Your task to perform on an android device: change keyboard looks Image 0: 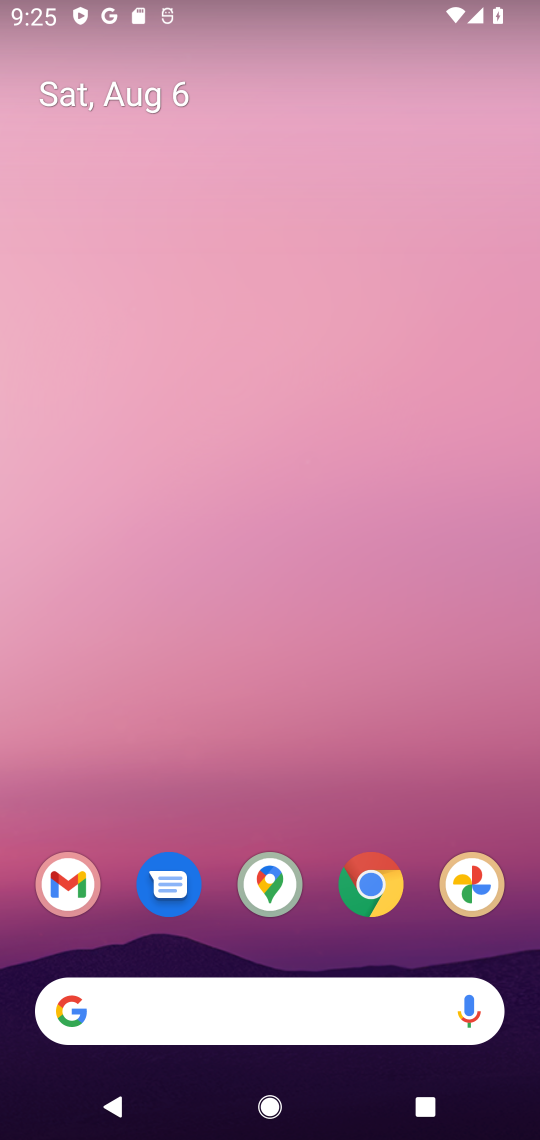
Step 0: drag from (421, 945) to (403, 204)
Your task to perform on an android device: change keyboard looks Image 1: 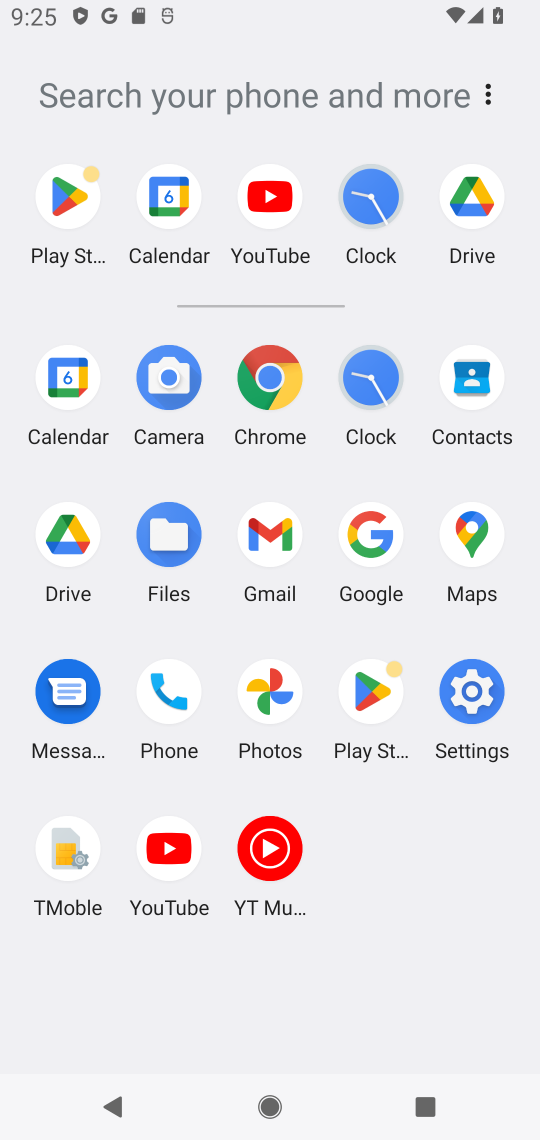
Step 1: click (476, 690)
Your task to perform on an android device: change keyboard looks Image 2: 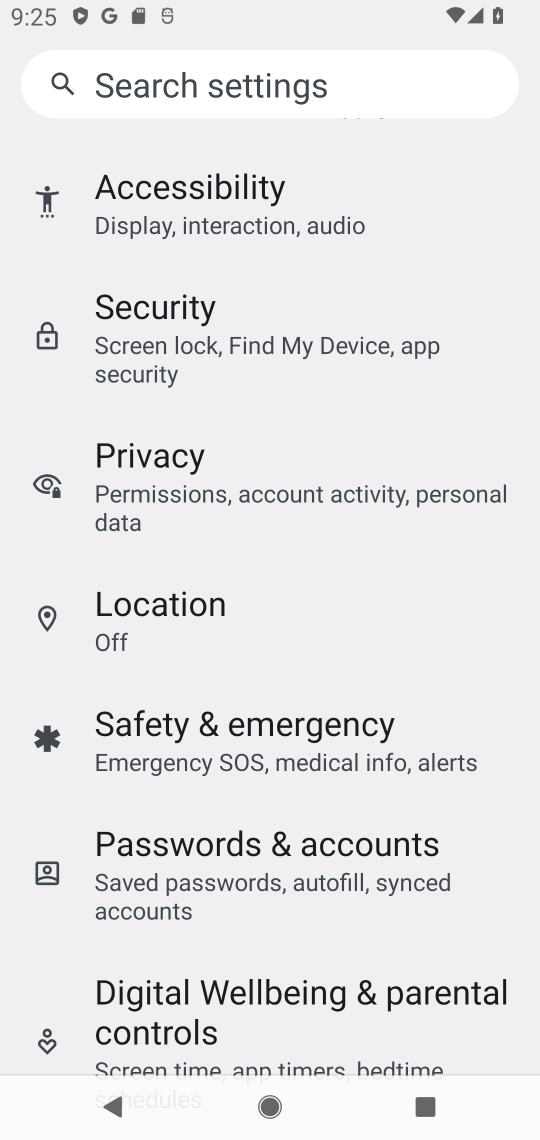
Step 2: drag from (476, 913) to (414, 266)
Your task to perform on an android device: change keyboard looks Image 3: 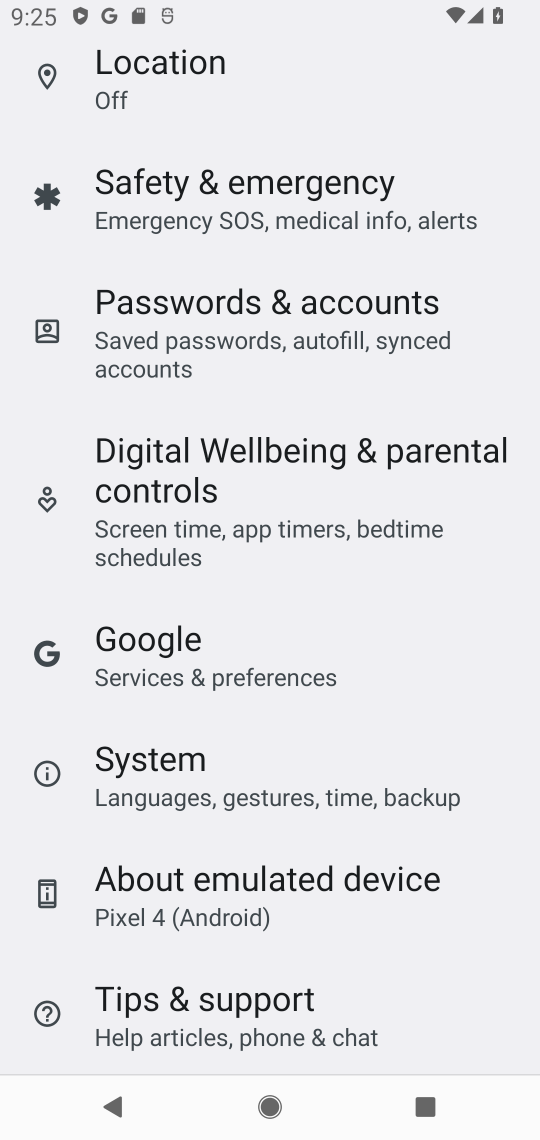
Step 3: click (163, 775)
Your task to perform on an android device: change keyboard looks Image 4: 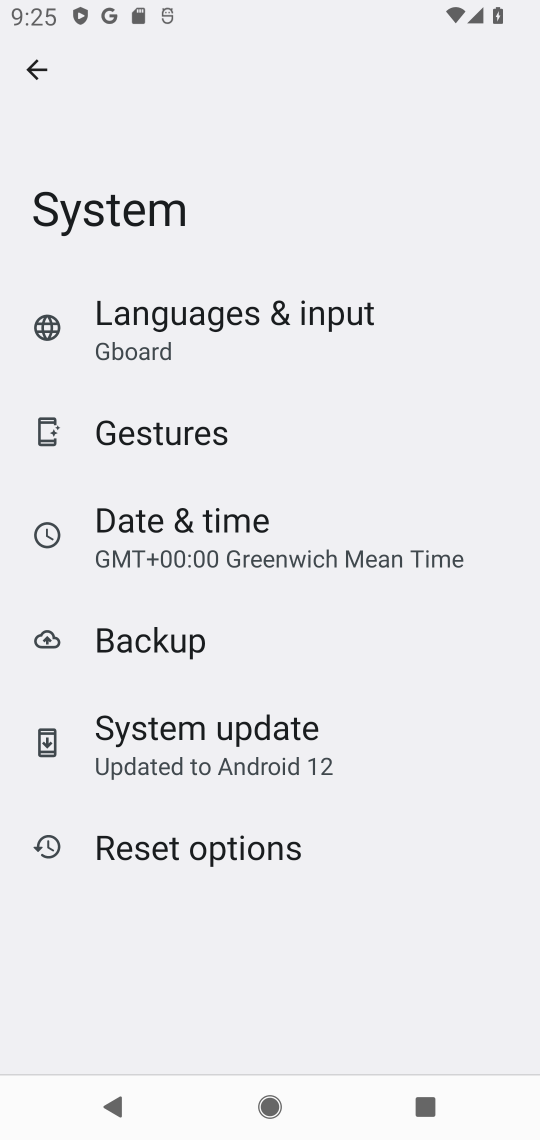
Step 4: click (177, 320)
Your task to perform on an android device: change keyboard looks Image 5: 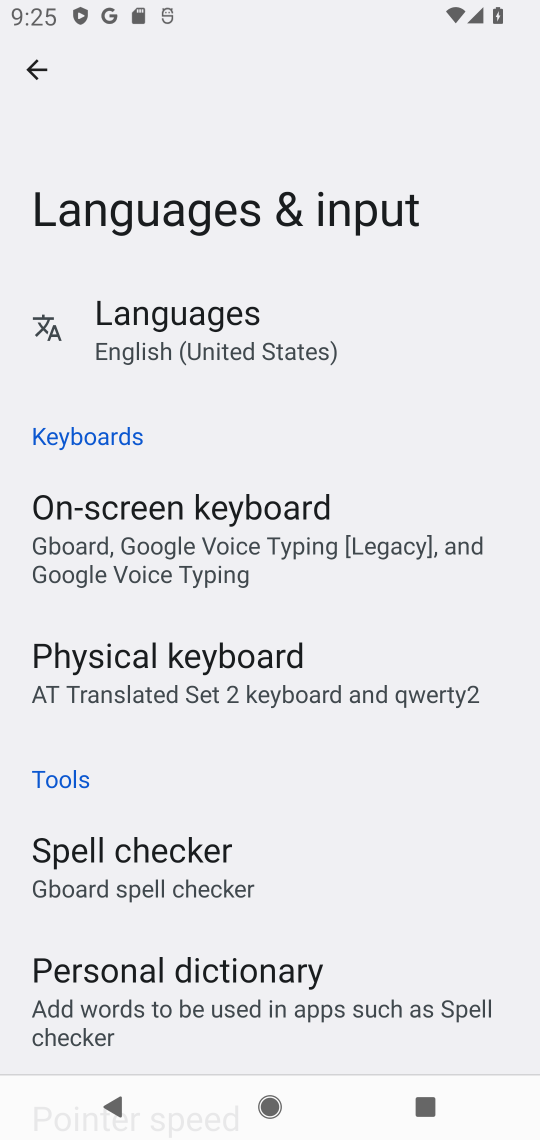
Step 5: click (181, 665)
Your task to perform on an android device: change keyboard looks Image 6: 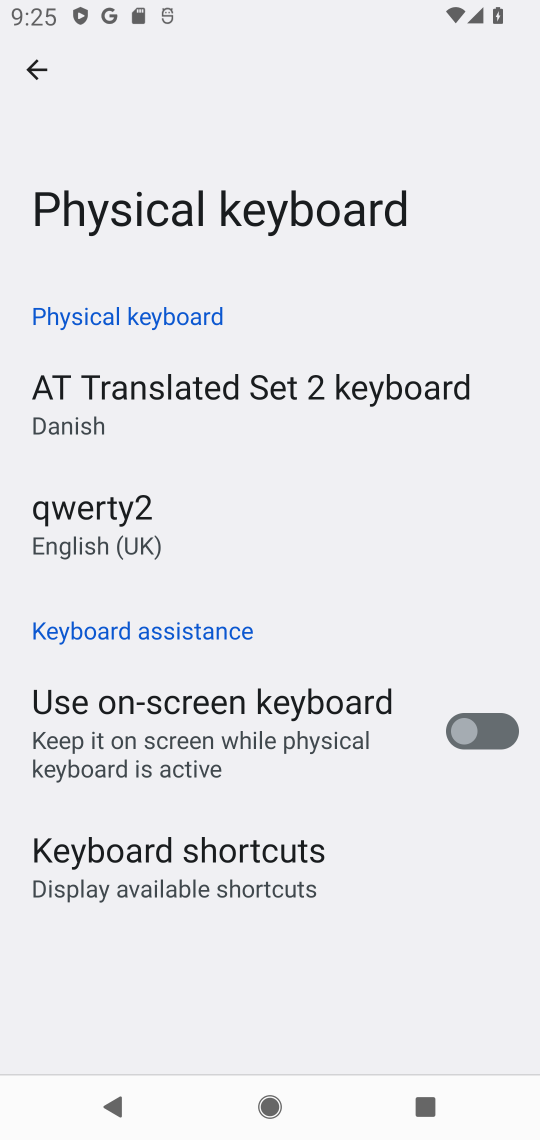
Step 6: click (115, 397)
Your task to perform on an android device: change keyboard looks Image 7: 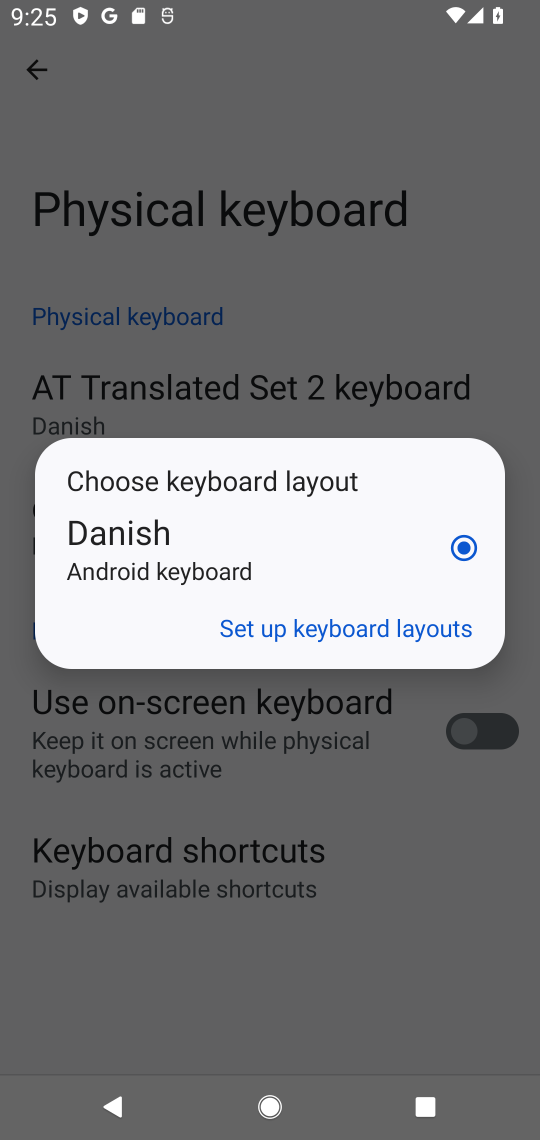
Step 7: click (353, 625)
Your task to perform on an android device: change keyboard looks Image 8: 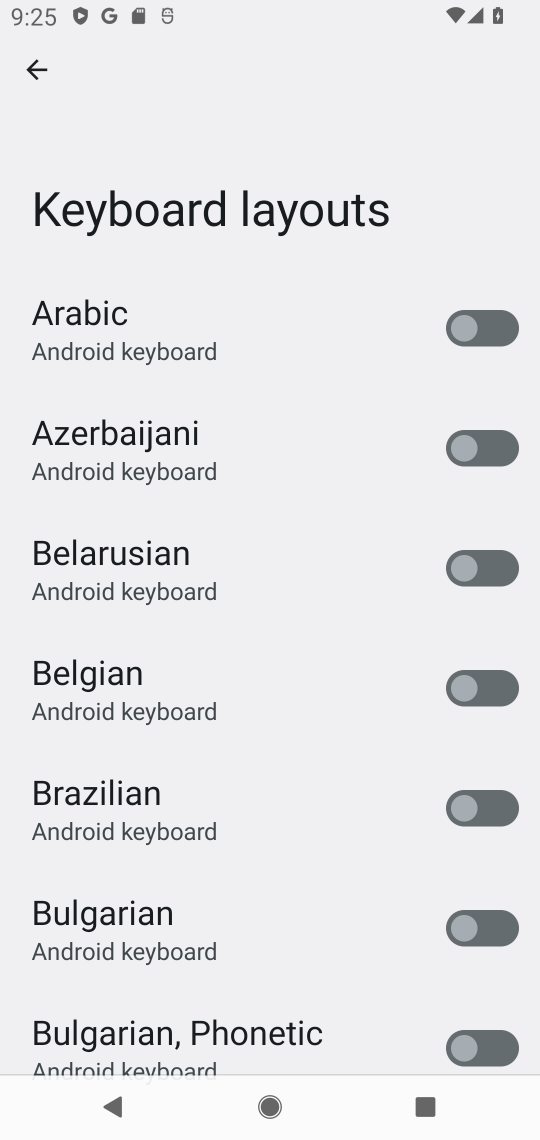
Step 8: drag from (397, 990) to (393, 331)
Your task to perform on an android device: change keyboard looks Image 9: 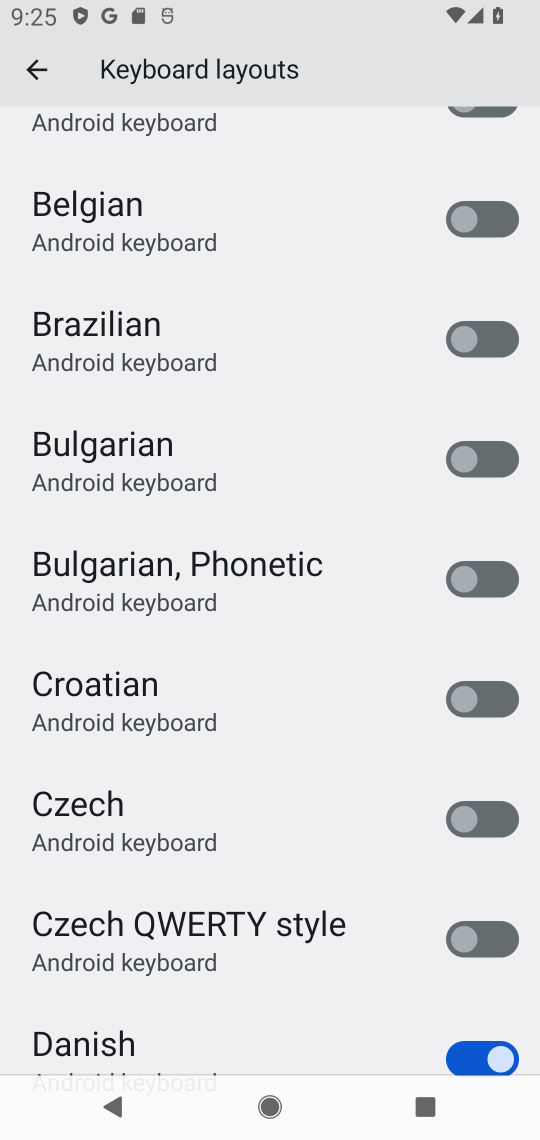
Step 9: drag from (383, 921) to (354, 247)
Your task to perform on an android device: change keyboard looks Image 10: 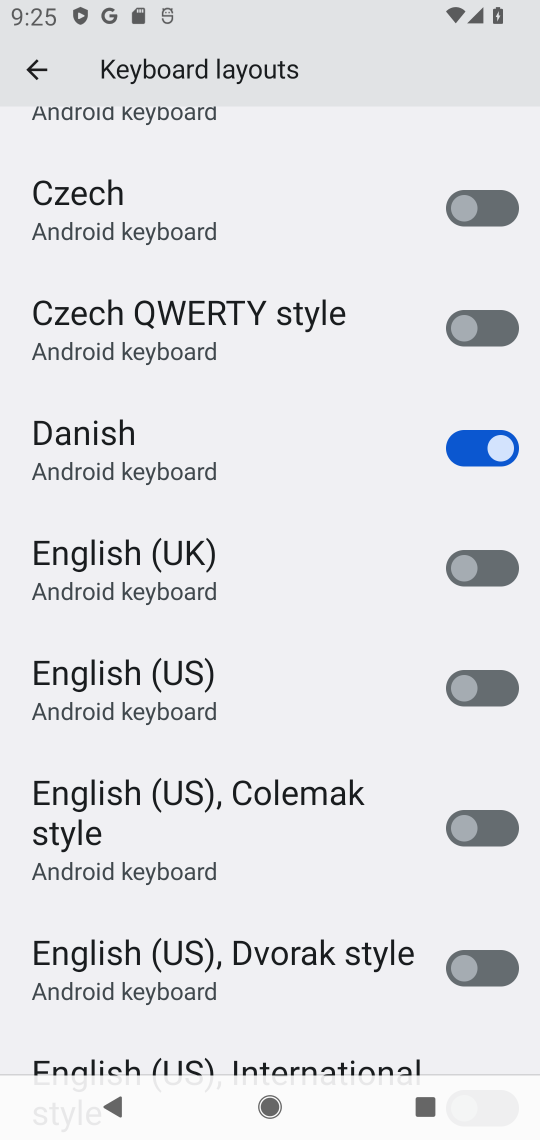
Step 10: click (492, 813)
Your task to perform on an android device: change keyboard looks Image 11: 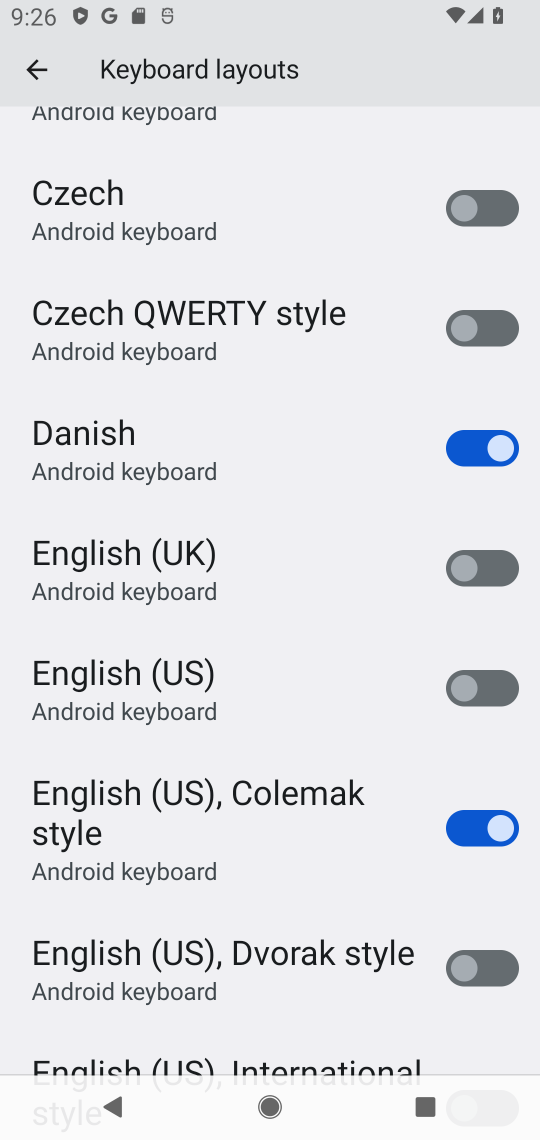
Step 11: task complete